Your task to perform on an android device: Go to Google Image 0: 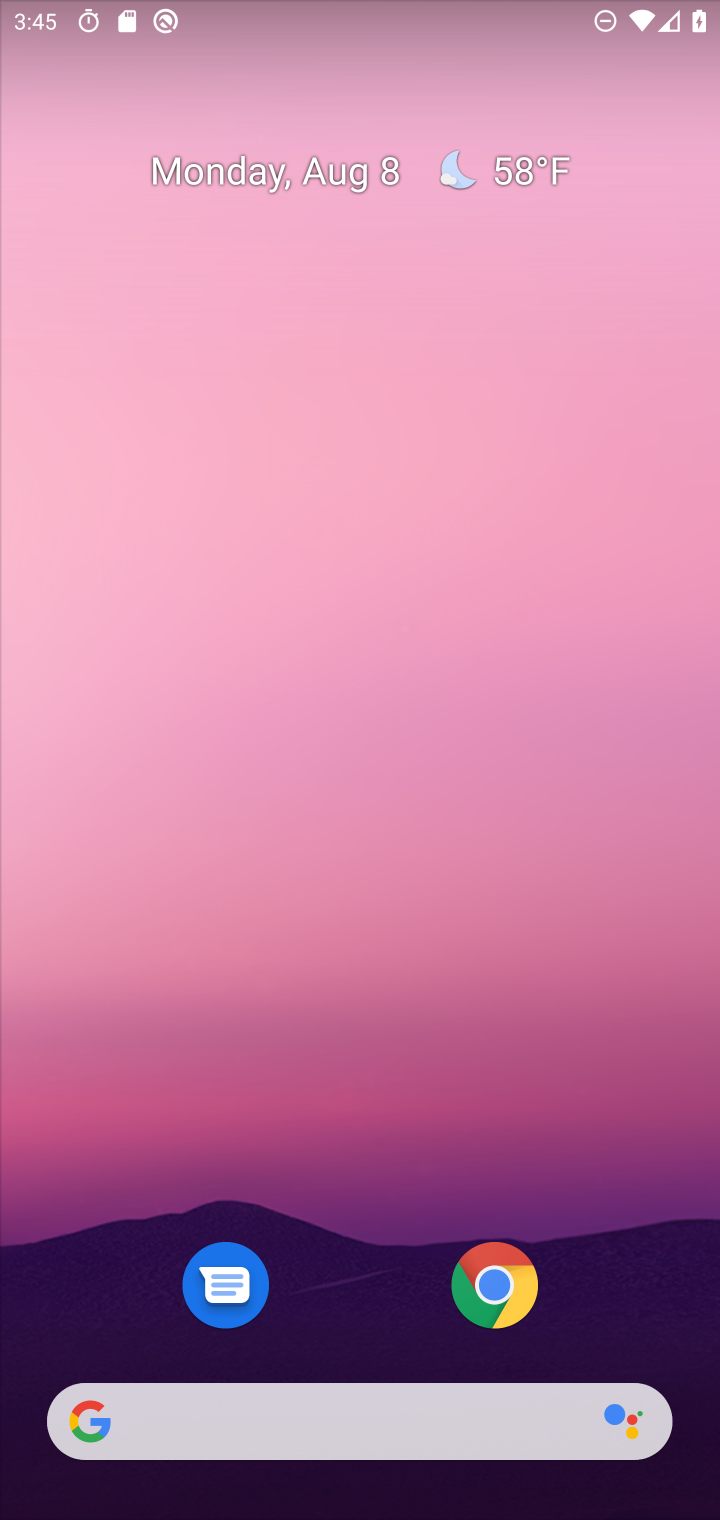
Step 0: drag from (334, 1409) to (554, 84)
Your task to perform on an android device: Go to Google Image 1: 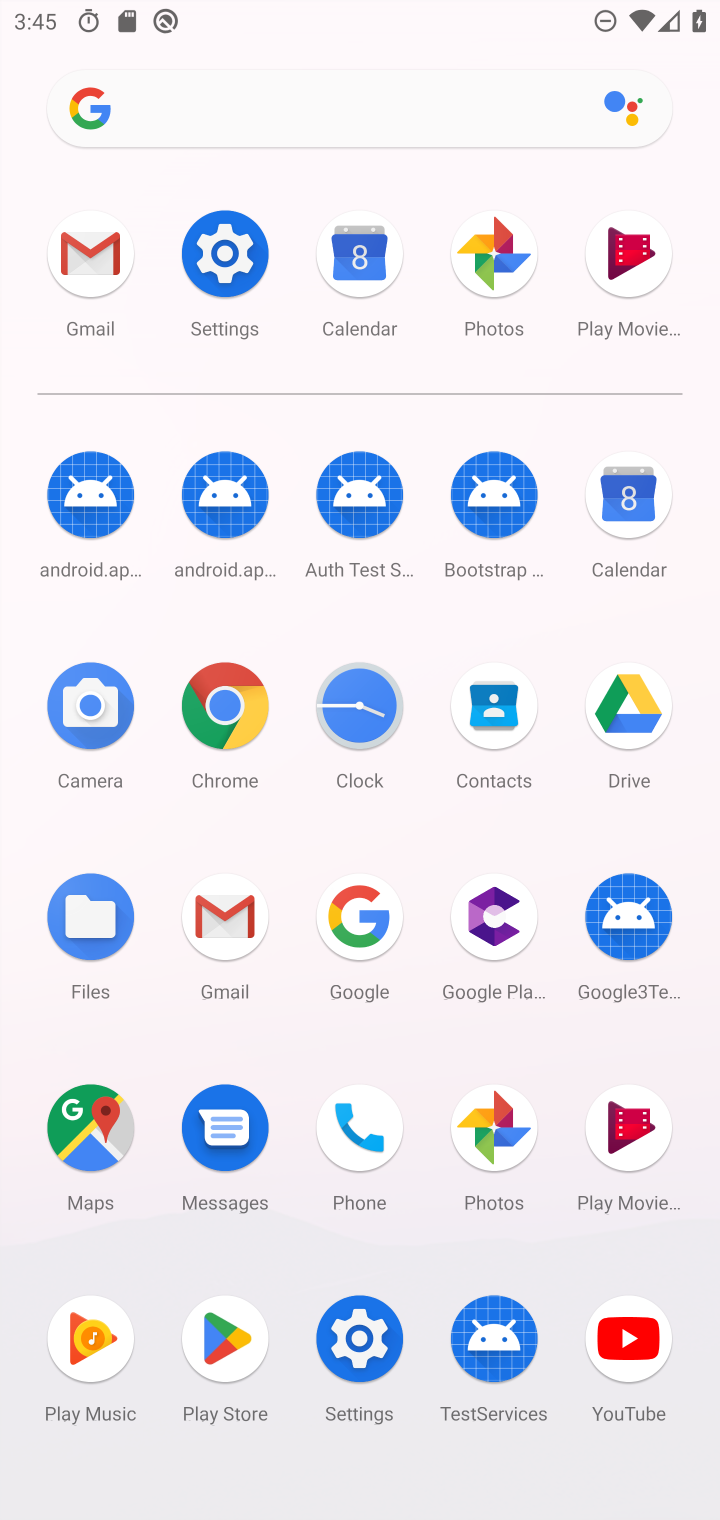
Step 1: click (359, 917)
Your task to perform on an android device: Go to Google Image 2: 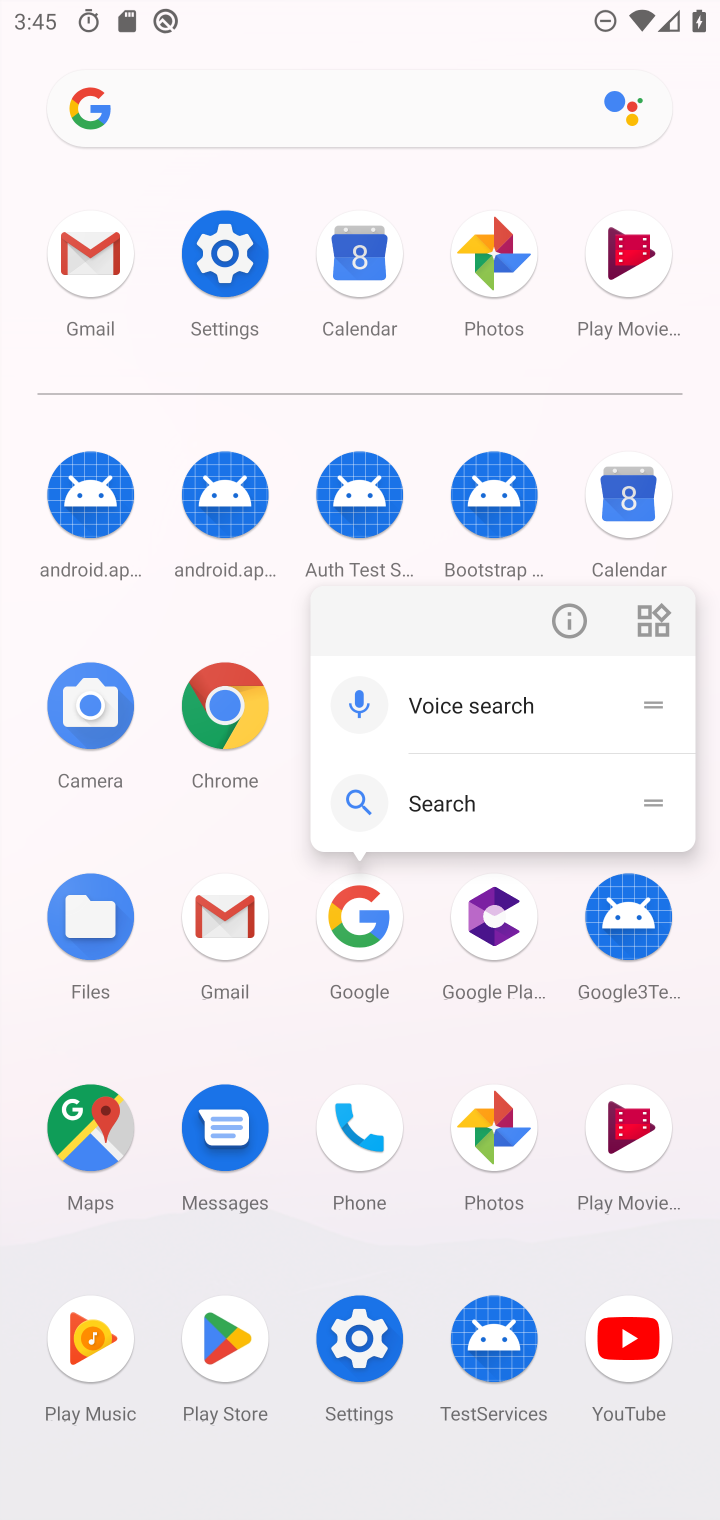
Step 2: click (355, 915)
Your task to perform on an android device: Go to Google Image 3: 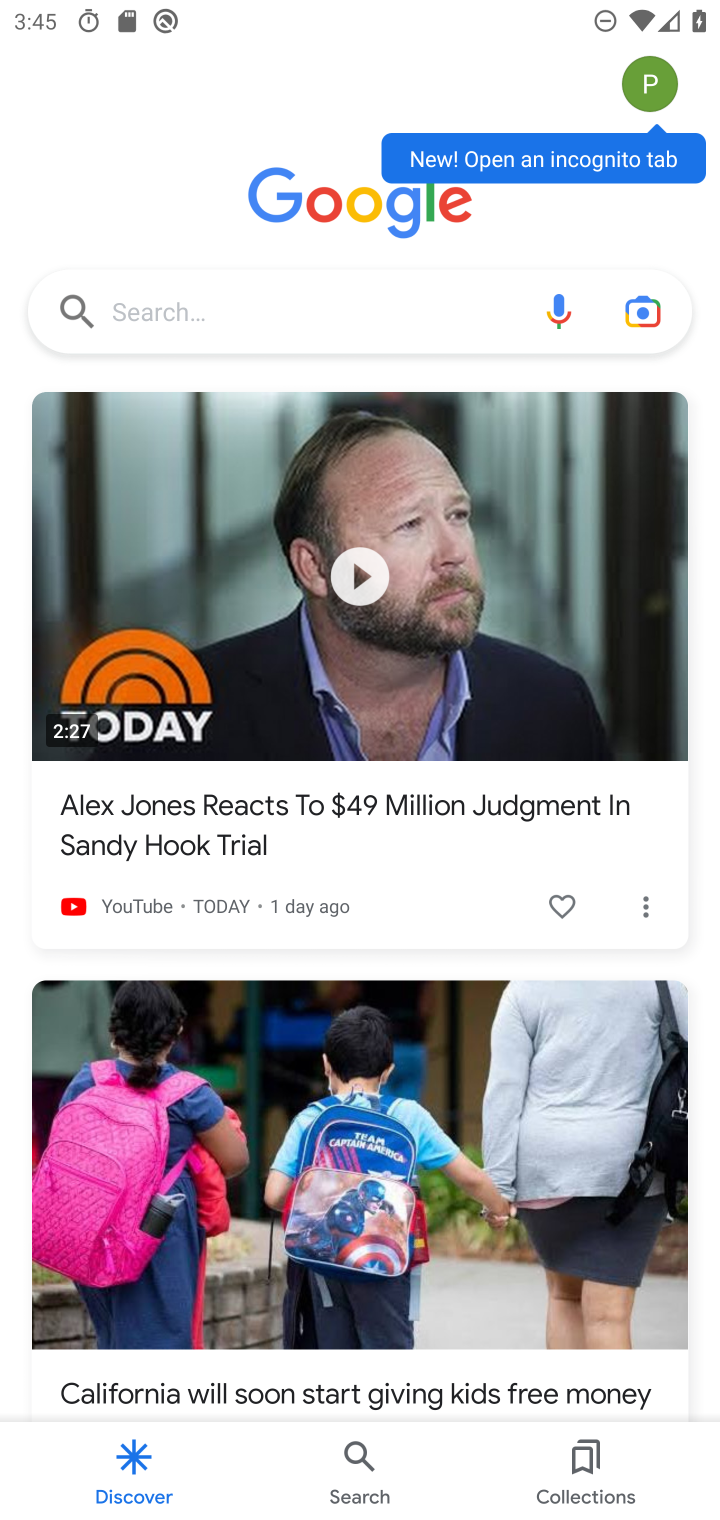
Step 3: task complete